Your task to perform on an android device: turn notification dots off Image 0: 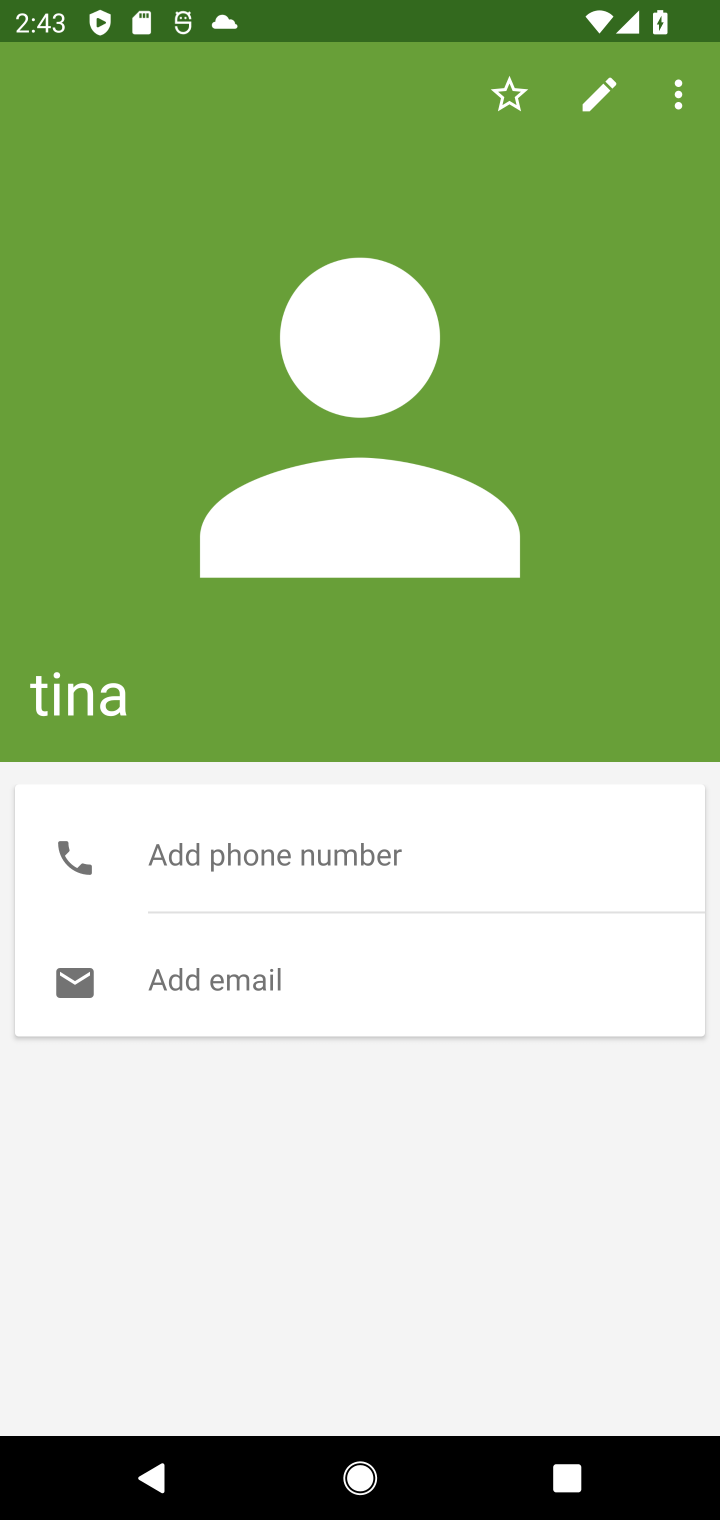
Step 0: press home button
Your task to perform on an android device: turn notification dots off Image 1: 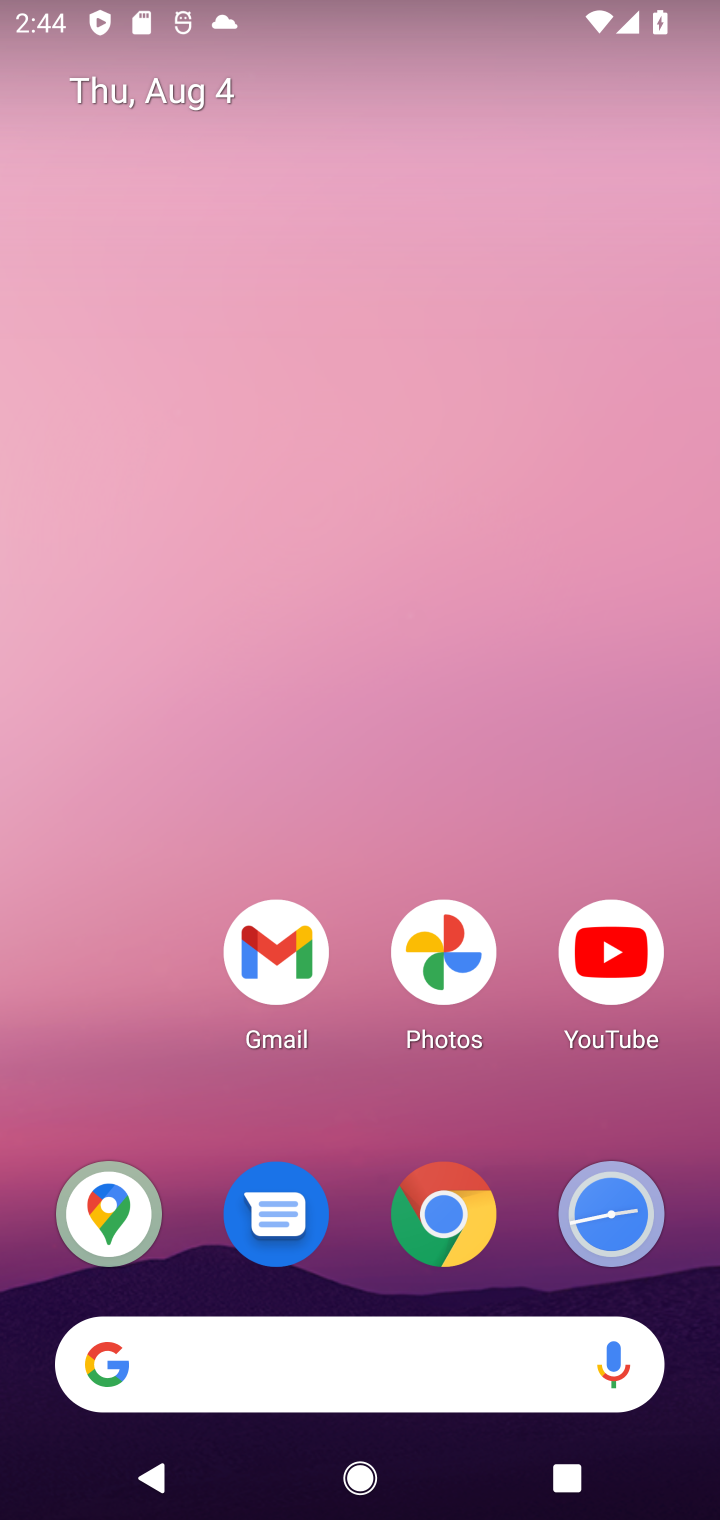
Step 1: drag from (155, 1080) to (81, 2)
Your task to perform on an android device: turn notification dots off Image 2: 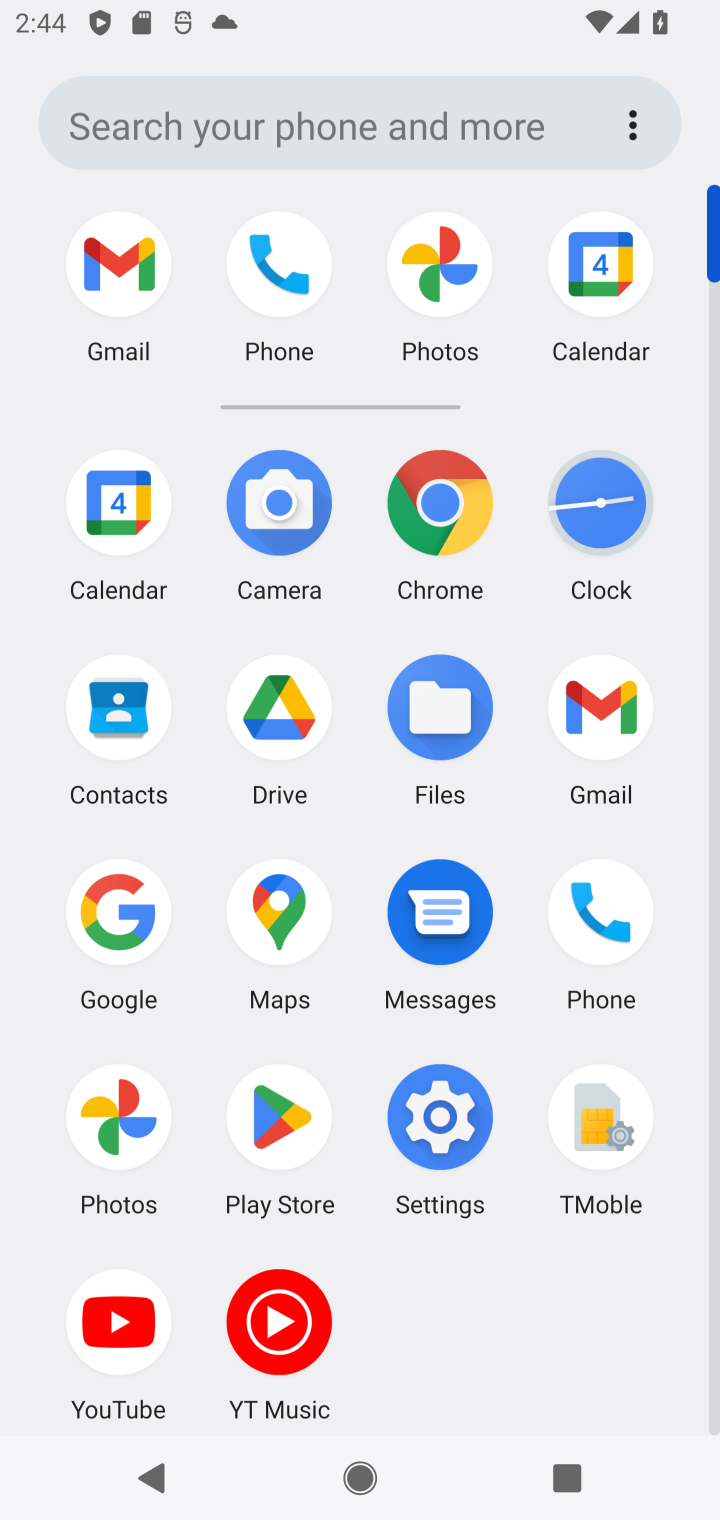
Step 2: click (432, 1166)
Your task to perform on an android device: turn notification dots off Image 3: 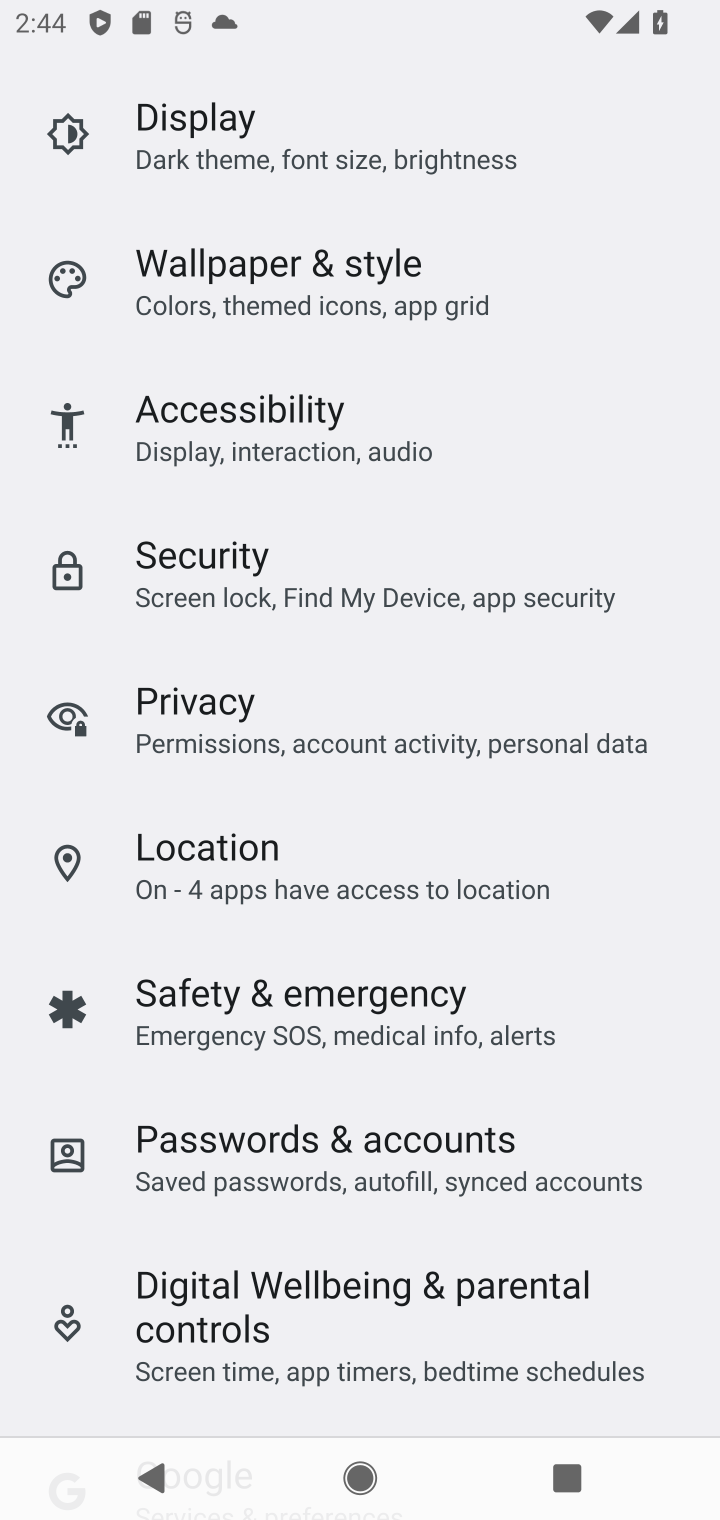
Step 3: drag from (409, 238) to (562, 1409)
Your task to perform on an android device: turn notification dots off Image 4: 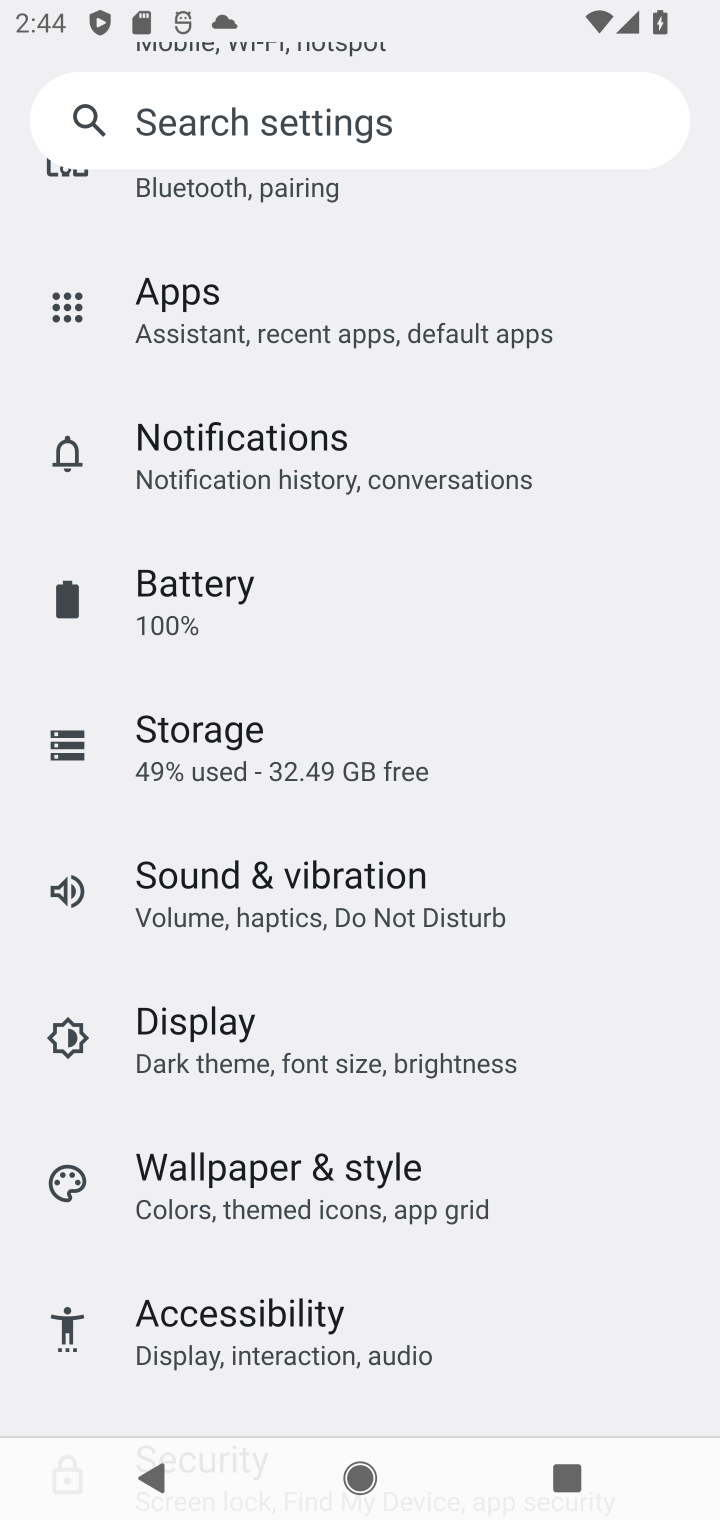
Step 4: click (276, 475)
Your task to perform on an android device: turn notification dots off Image 5: 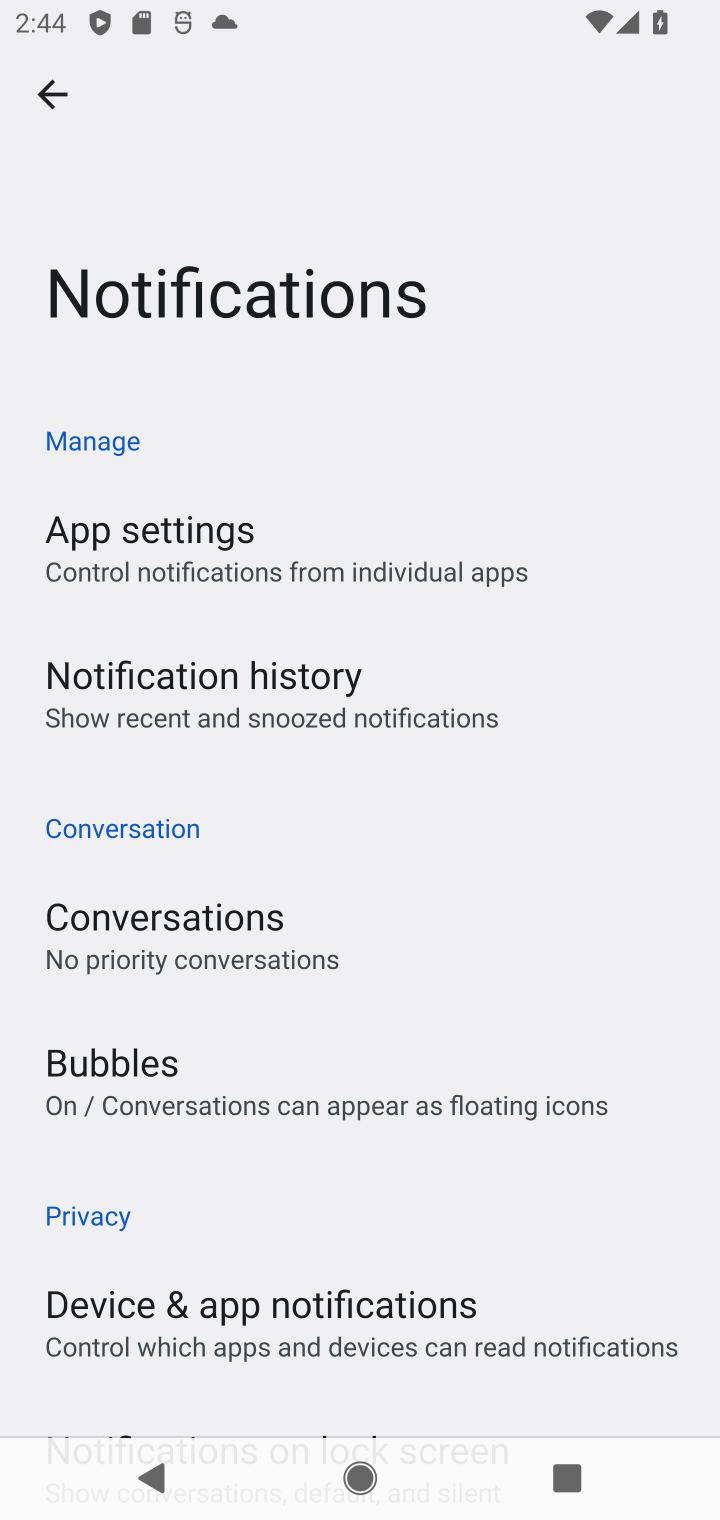
Step 5: task complete